Your task to perform on an android device: Go to network settings Image 0: 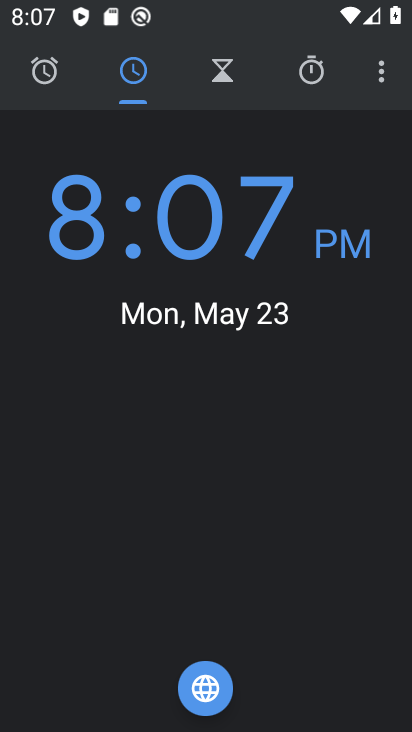
Step 0: press home button
Your task to perform on an android device: Go to network settings Image 1: 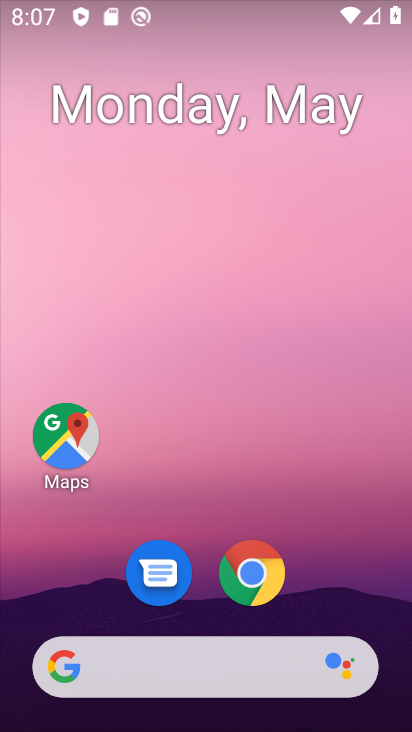
Step 1: drag from (256, 607) to (303, 186)
Your task to perform on an android device: Go to network settings Image 2: 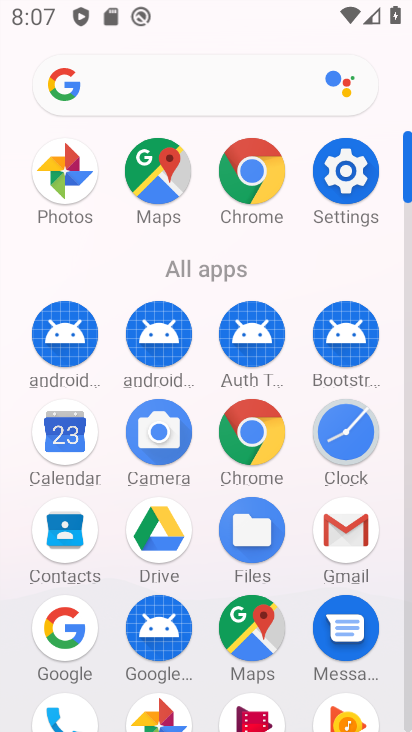
Step 2: click (355, 190)
Your task to perform on an android device: Go to network settings Image 3: 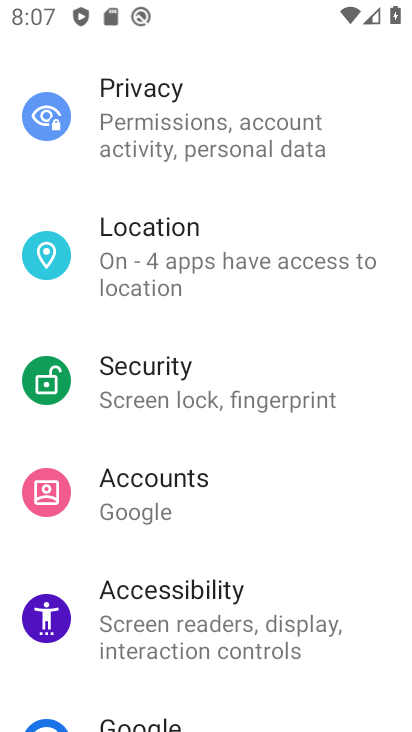
Step 3: drag from (273, 262) to (239, 567)
Your task to perform on an android device: Go to network settings Image 4: 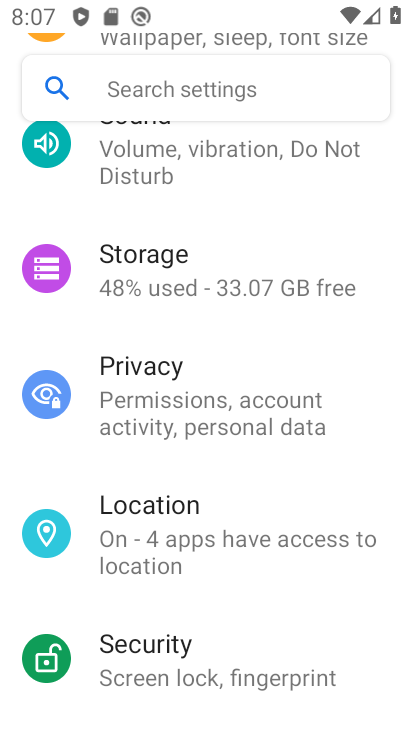
Step 4: drag from (249, 294) to (201, 709)
Your task to perform on an android device: Go to network settings Image 5: 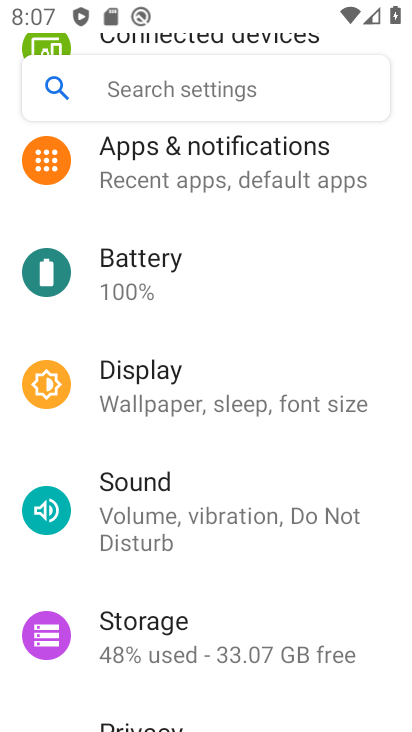
Step 5: drag from (225, 333) to (192, 720)
Your task to perform on an android device: Go to network settings Image 6: 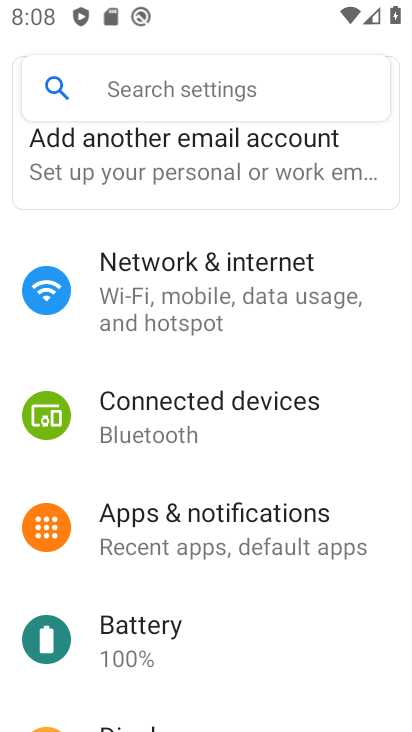
Step 6: click (249, 303)
Your task to perform on an android device: Go to network settings Image 7: 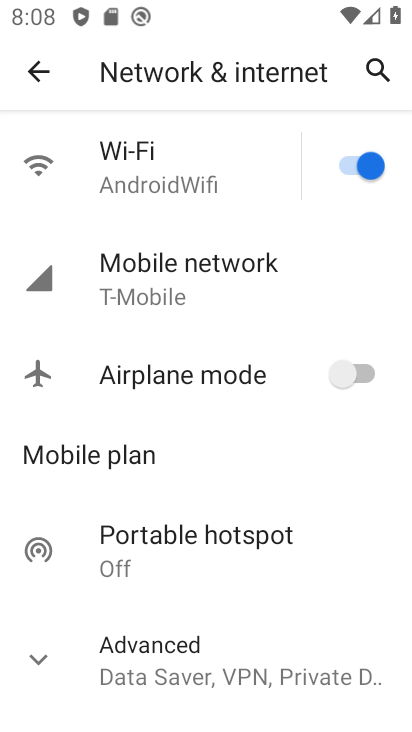
Step 7: click (185, 269)
Your task to perform on an android device: Go to network settings Image 8: 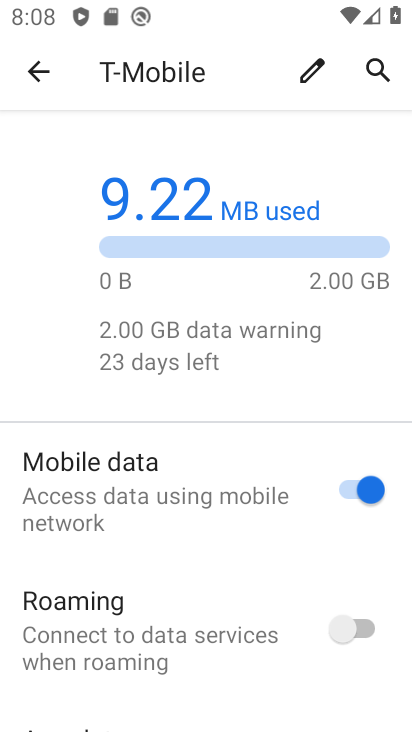
Step 8: task complete